Your task to perform on an android device: allow cookies in the chrome app Image 0: 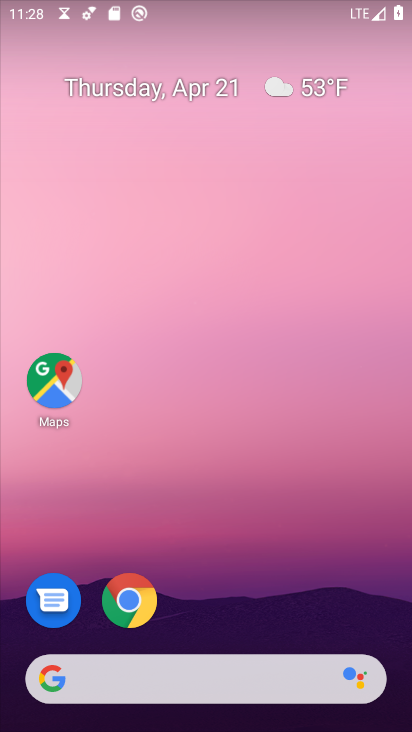
Step 0: click (139, 591)
Your task to perform on an android device: allow cookies in the chrome app Image 1: 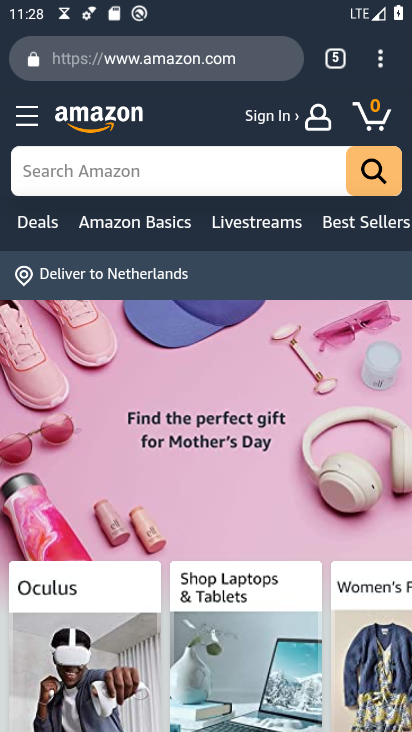
Step 1: click (383, 54)
Your task to perform on an android device: allow cookies in the chrome app Image 2: 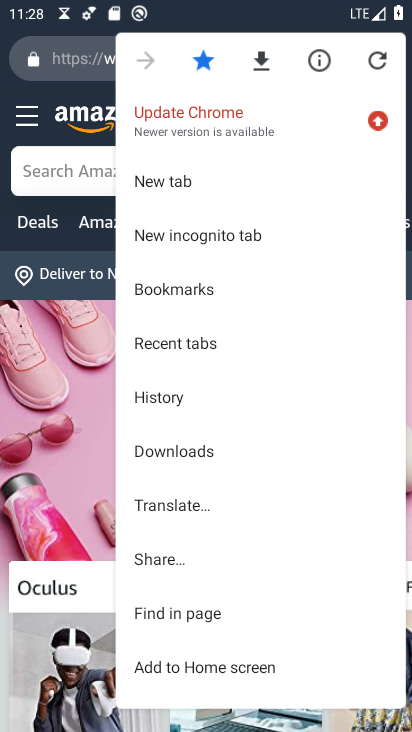
Step 2: drag from (277, 581) to (277, 203)
Your task to perform on an android device: allow cookies in the chrome app Image 3: 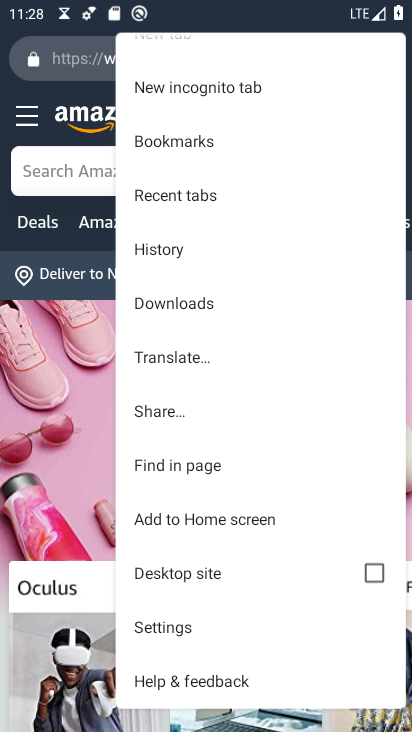
Step 3: click (202, 627)
Your task to perform on an android device: allow cookies in the chrome app Image 4: 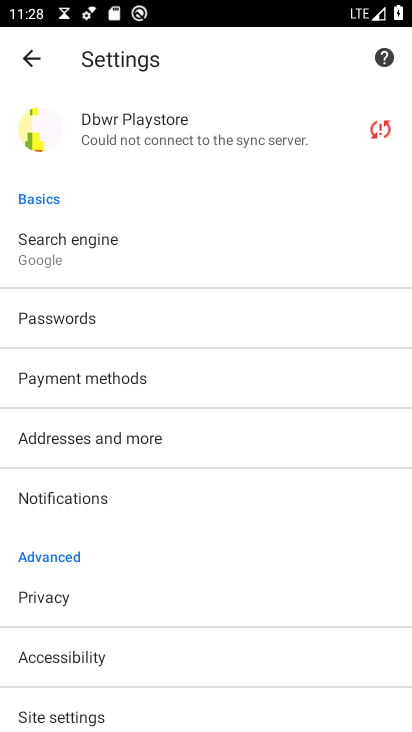
Step 4: drag from (180, 634) to (183, 203)
Your task to perform on an android device: allow cookies in the chrome app Image 5: 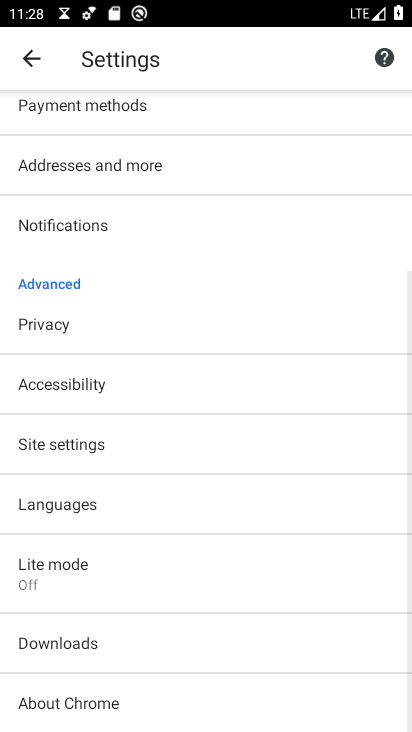
Step 5: click (95, 436)
Your task to perform on an android device: allow cookies in the chrome app Image 6: 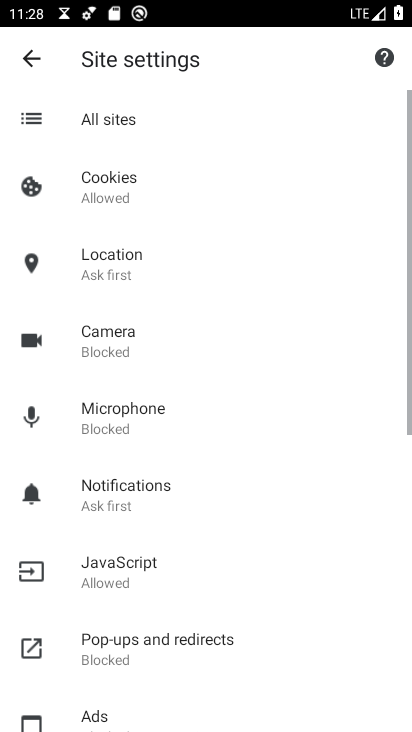
Step 6: drag from (238, 594) to (241, 164)
Your task to perform on an android device: allow cookies in the chrome app Image 7: 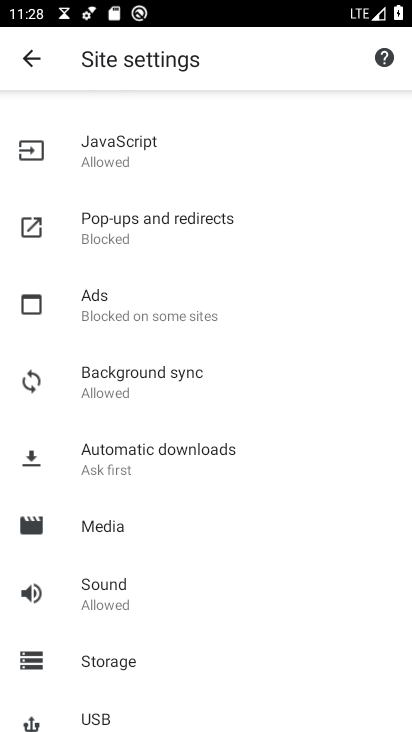
Step 7: drag from (229, 154) to (168, 719)
Your task to perform on an android device: allow cookies in the chrome app Image 8: 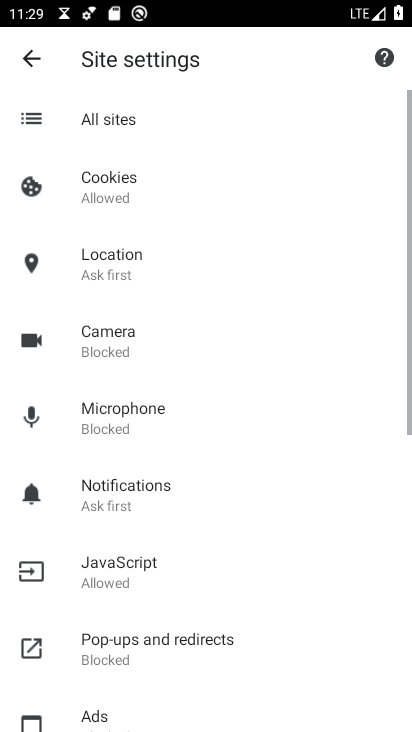
Step 8: click (146, 198)
Your task to perform on an android device: allow cookies in the chrome app Image 9: 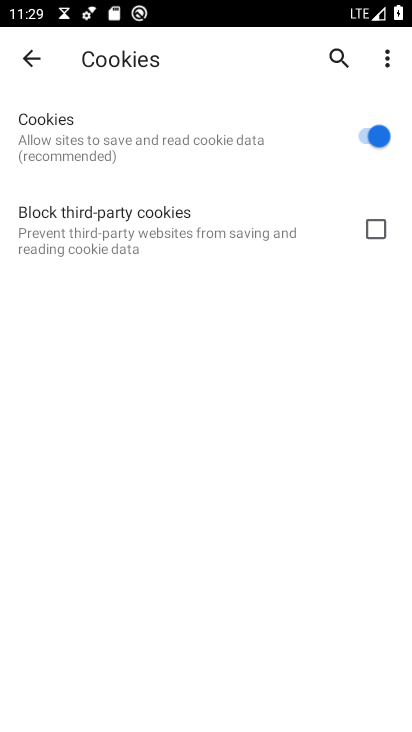
Step 9: task complete